Your task to perform on an android device: How much does a 2 bedroom apartment rent for in Portland? Image 0: 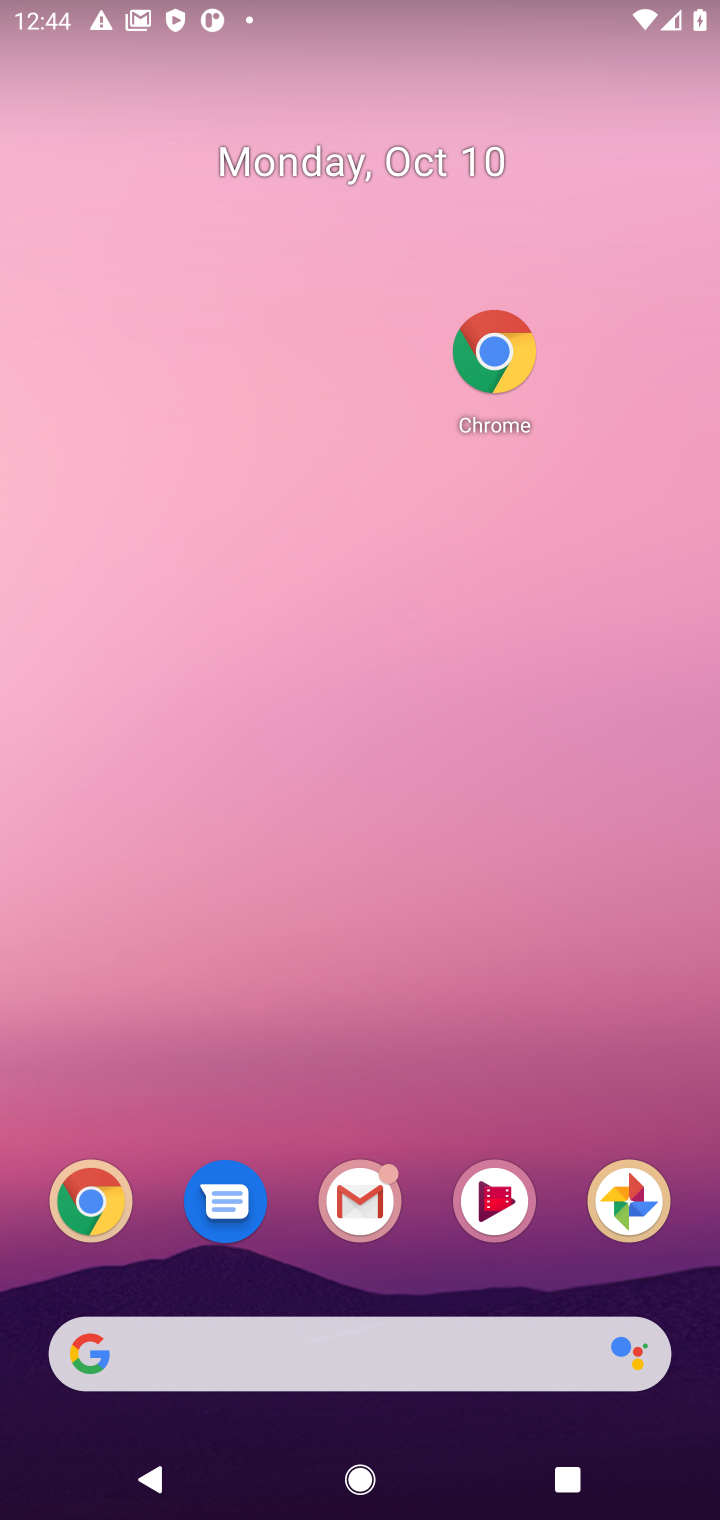
Step 0: click (493, 370)
Your task to perform on an android device: How much does a 2 bedroom apartment rent for in Portland? Image 1: 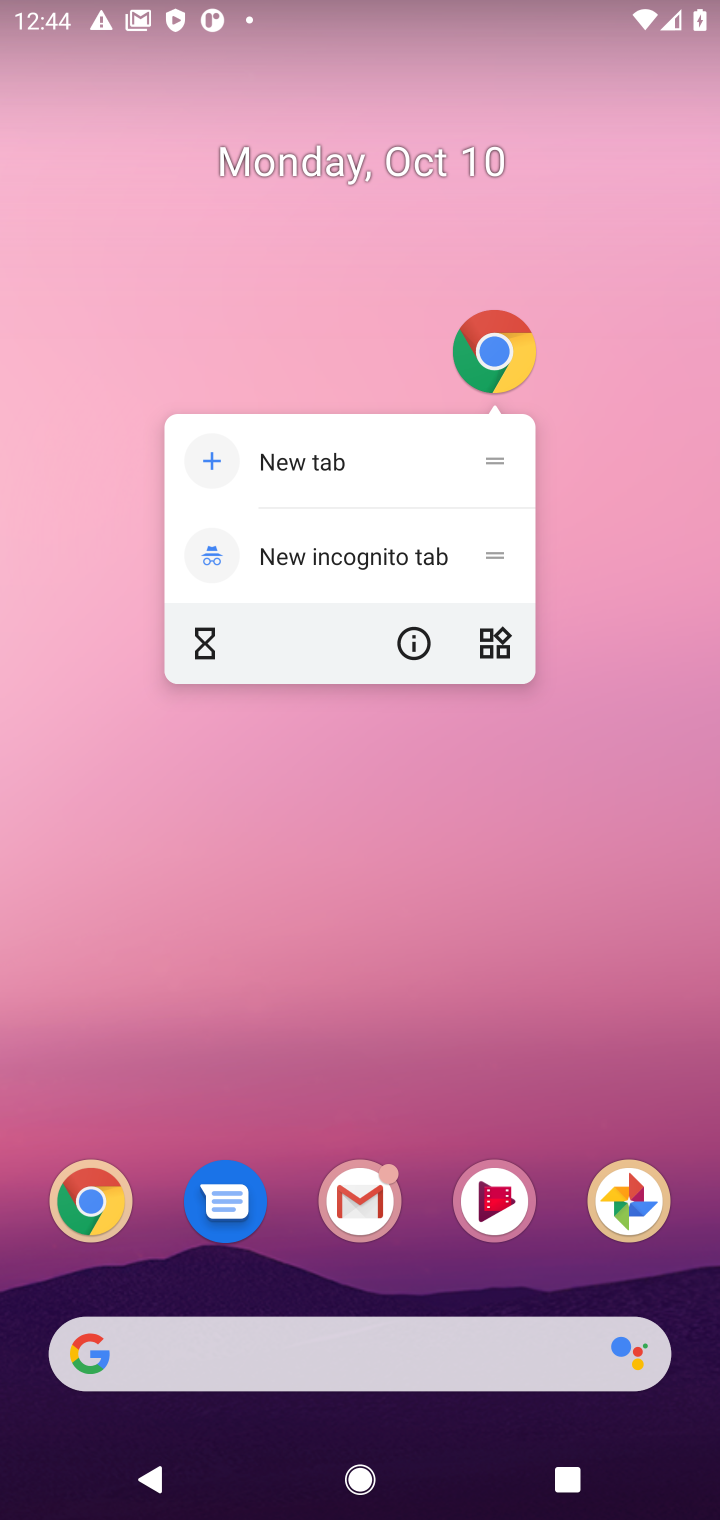
Step 1: click (493, 360)
Your task to perform on an android device: How much does a 2 bedroom apartment rent for in Portland? Image 2: 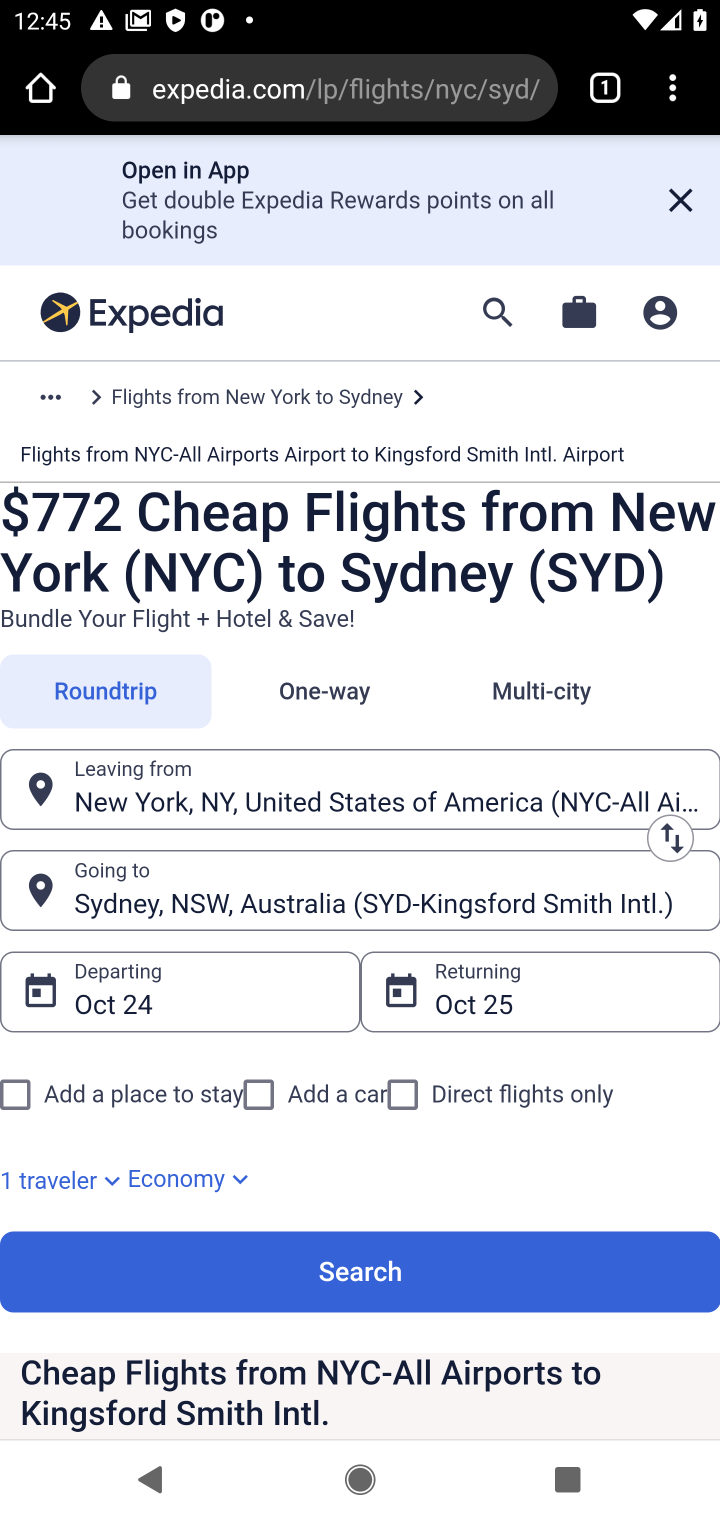
Step 2: click (315, 107)
Your task to perform on an android device: How much does a 2 bedroom apartment rent for in Portland? Image 3: 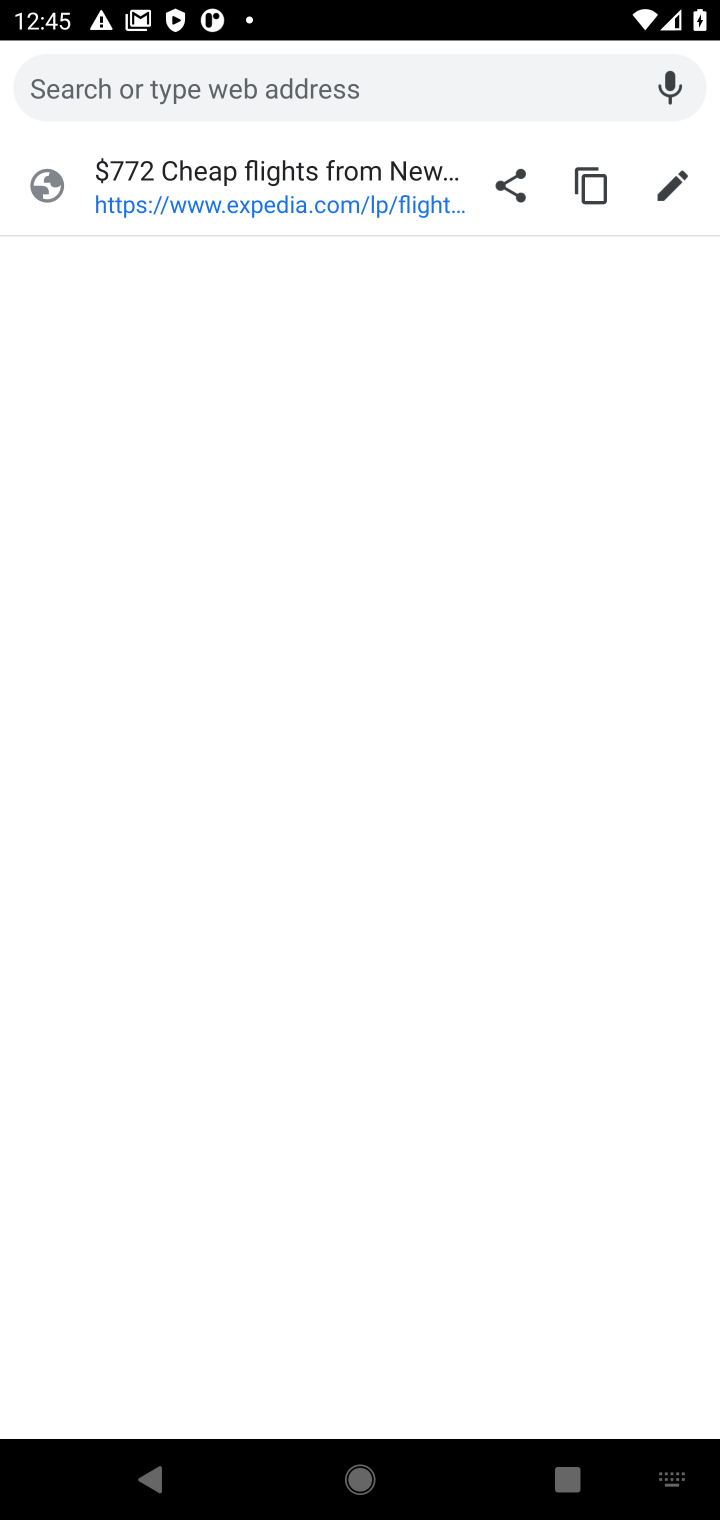
Step 3: type "How much does a 2 bedroom apartment rent for in Portland?"
Your task to perform on an android device: How much does a 2 bedroom apartment rent for in Portland? Image 4: 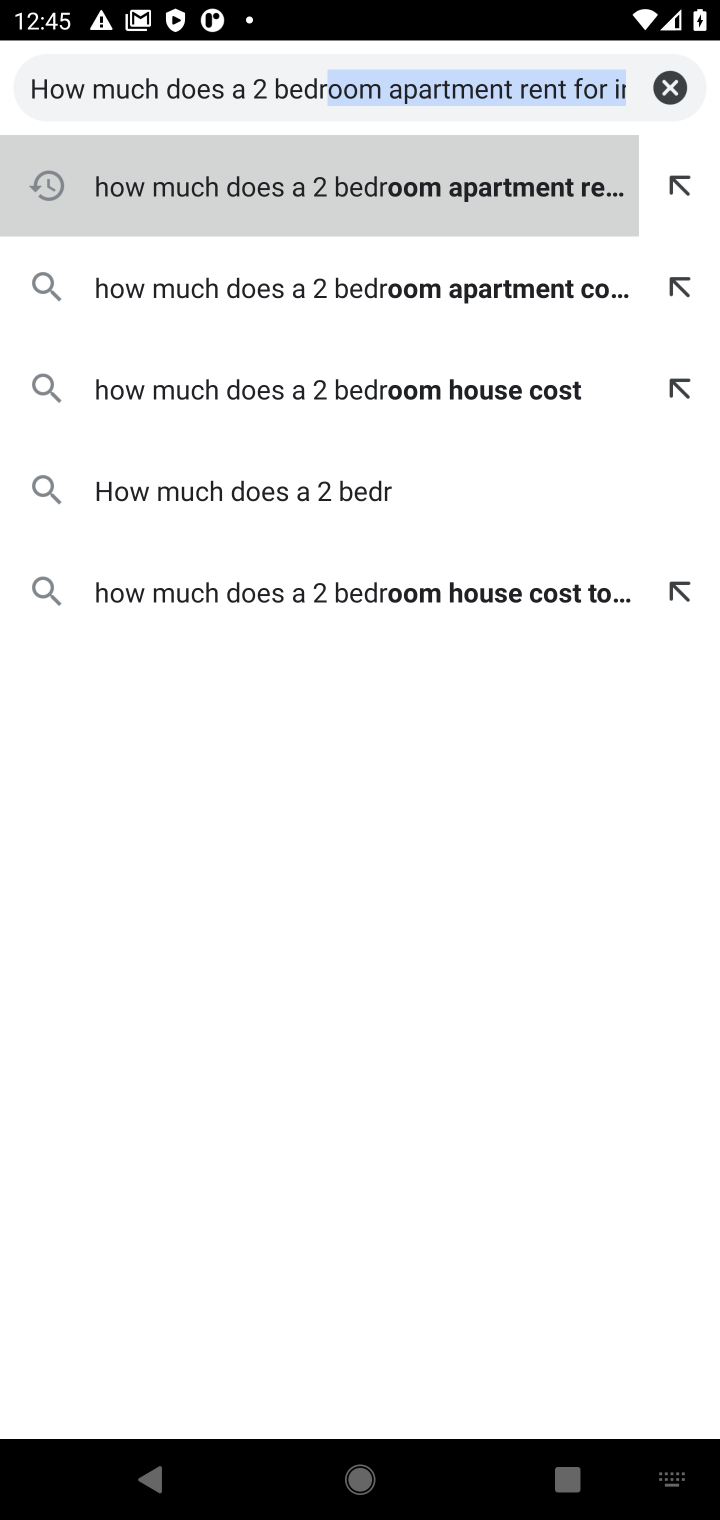
Step 4: click (452, 79)
Your task to perform on an android device: How much does a 2 bedroom apartment rent for in Portland? Image 5: 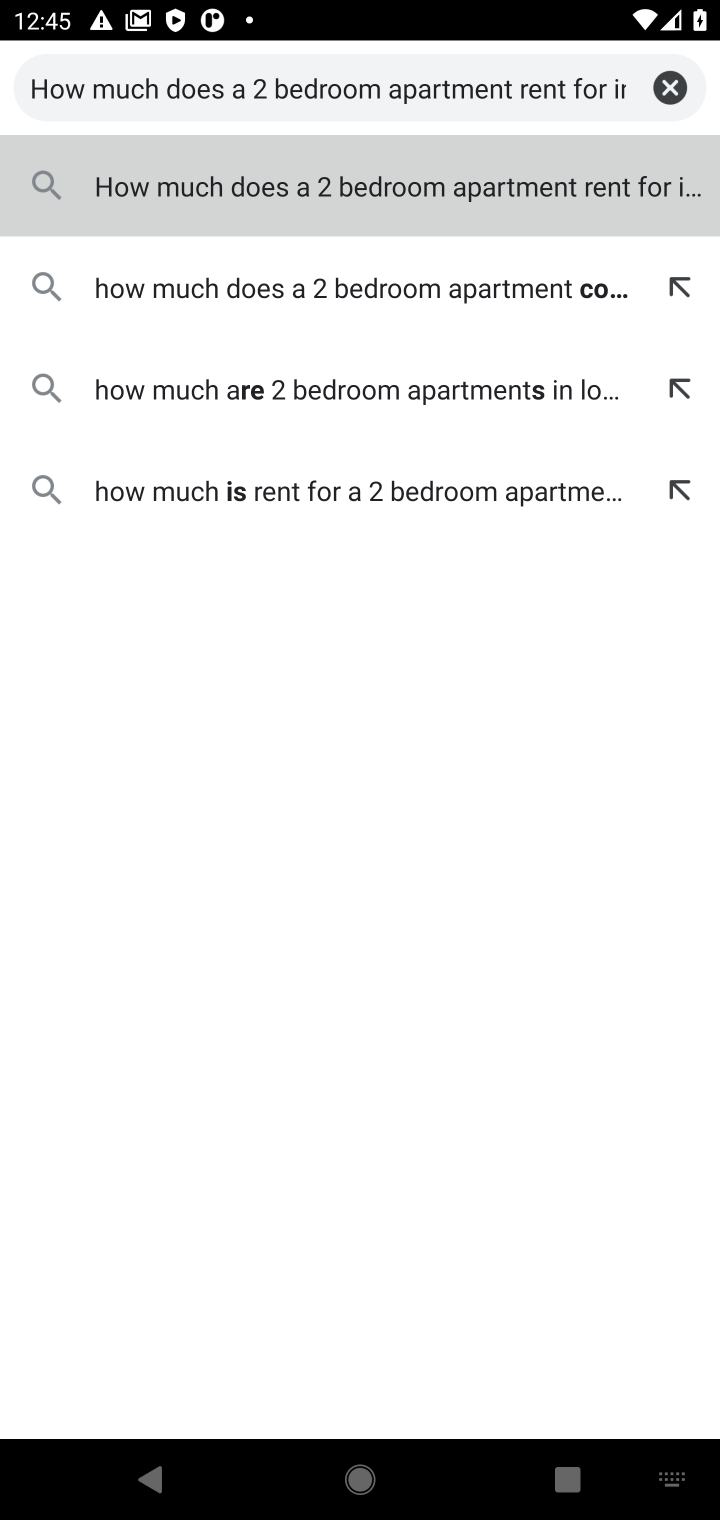
Step 5: click (582, 93)
Your task to perform on an android device: How much does a 2 bedroom apartment rent for in Portland? Image 6: 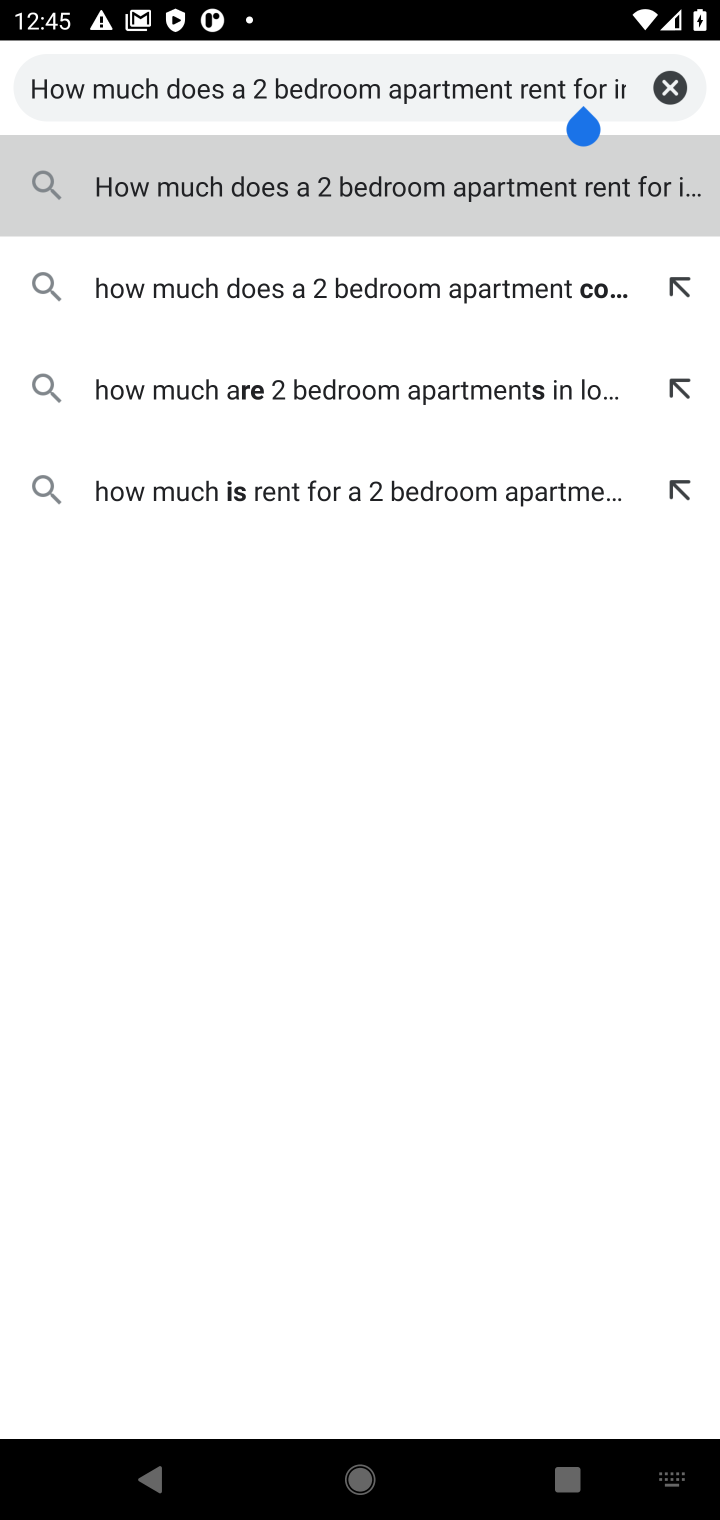
Step 6: drag from (516, 84) to (694, 93)
Your task to perform on an android device: How much does a 2 bedroom apartment rent for in Portland? Image 7: 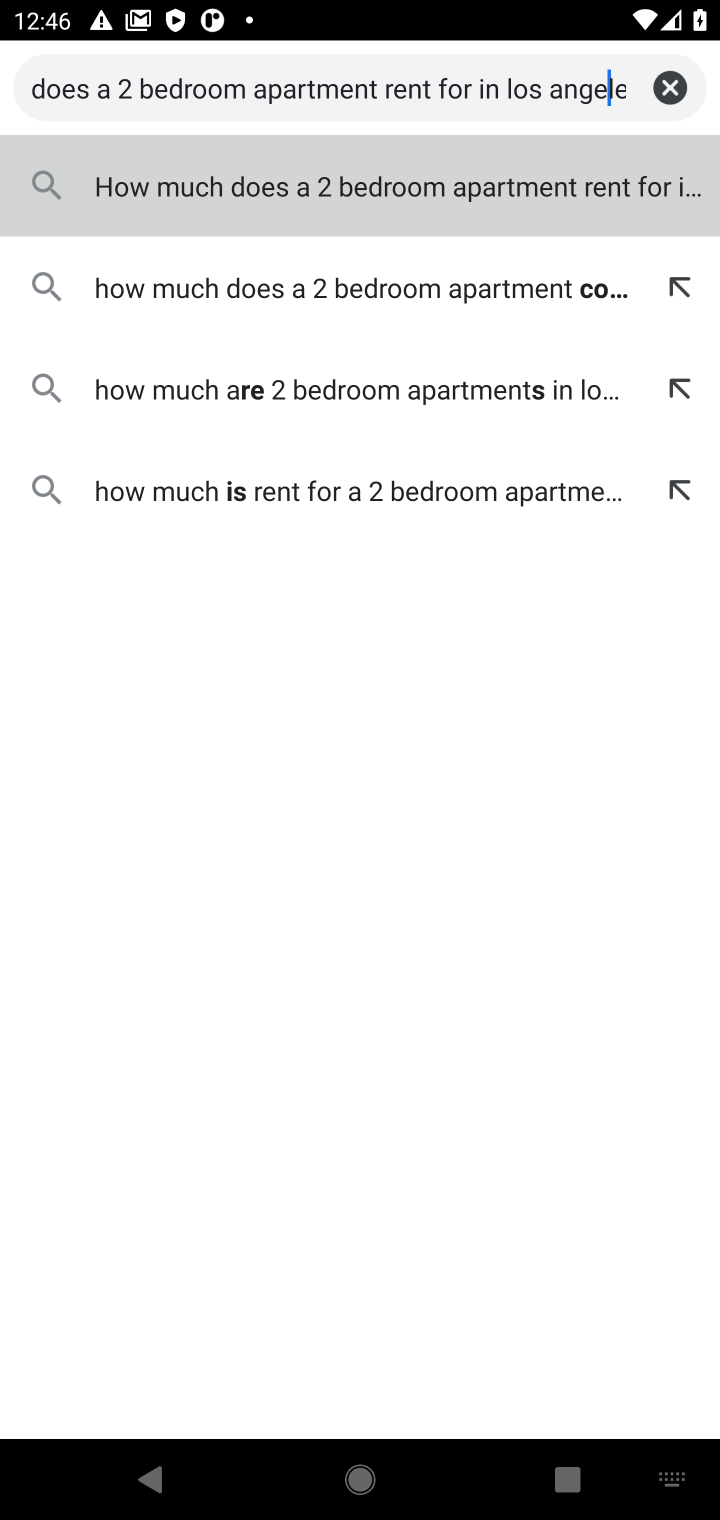
Step 7: click (662, 79)
Your task to perform on an android device: How much does a 2 bedroom apartment rent for in Portland? Image 8: 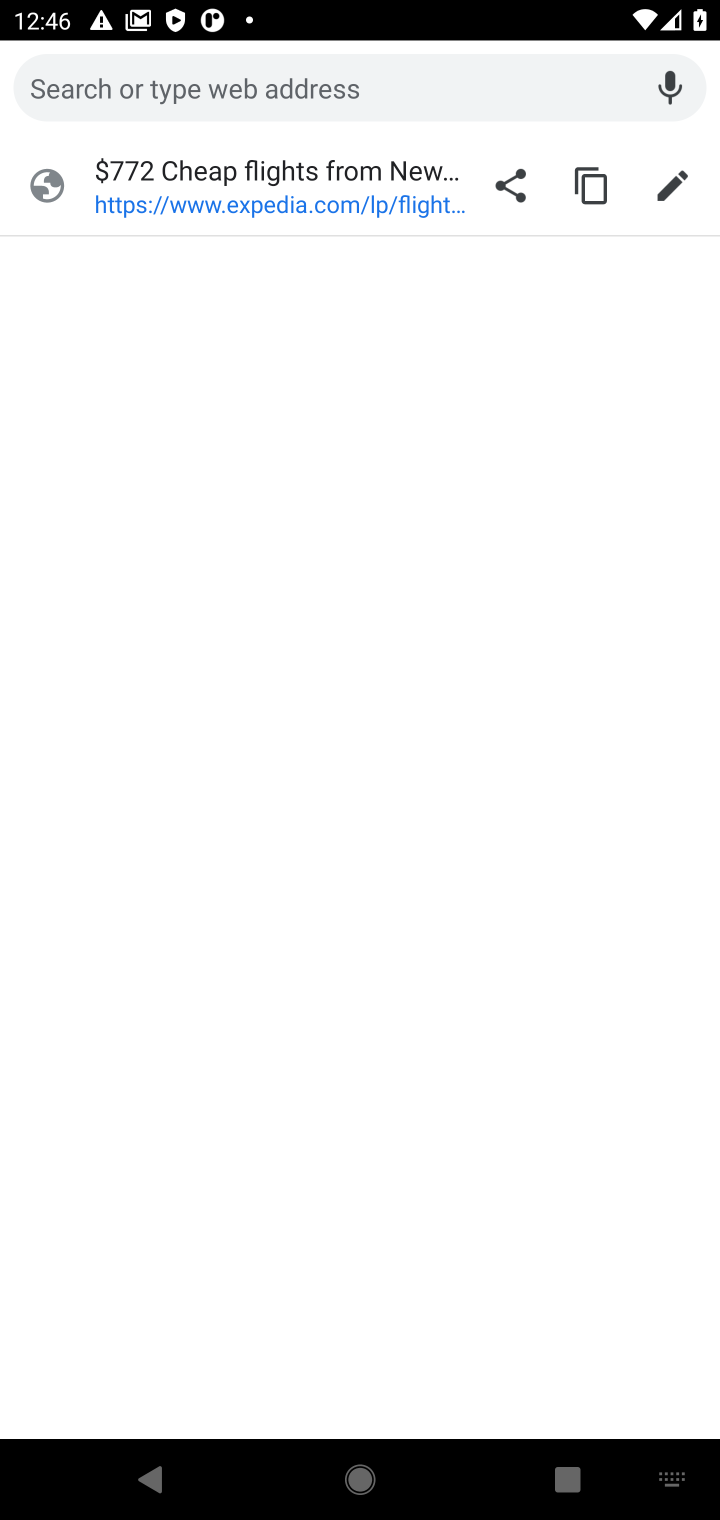
Step 8: click (180, 94)
Your task to perform on an android device: How much does a 2 bedroom apartment rent for in Portland? Image 9: 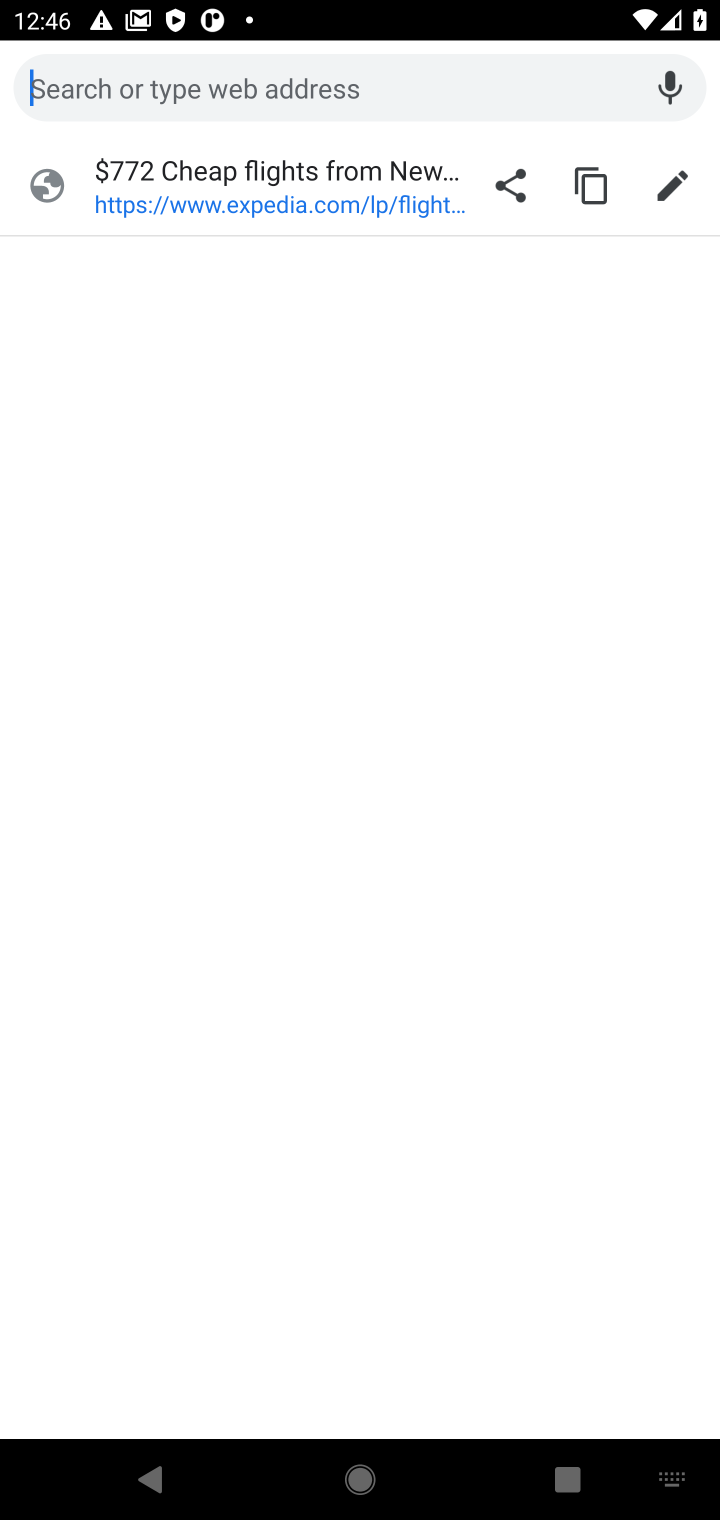
Step 9: type "2 bedroom rent in portland"
Your task to perform on an android device: How much does a 2 bedroom apartment rent for in Portland? Image 10: 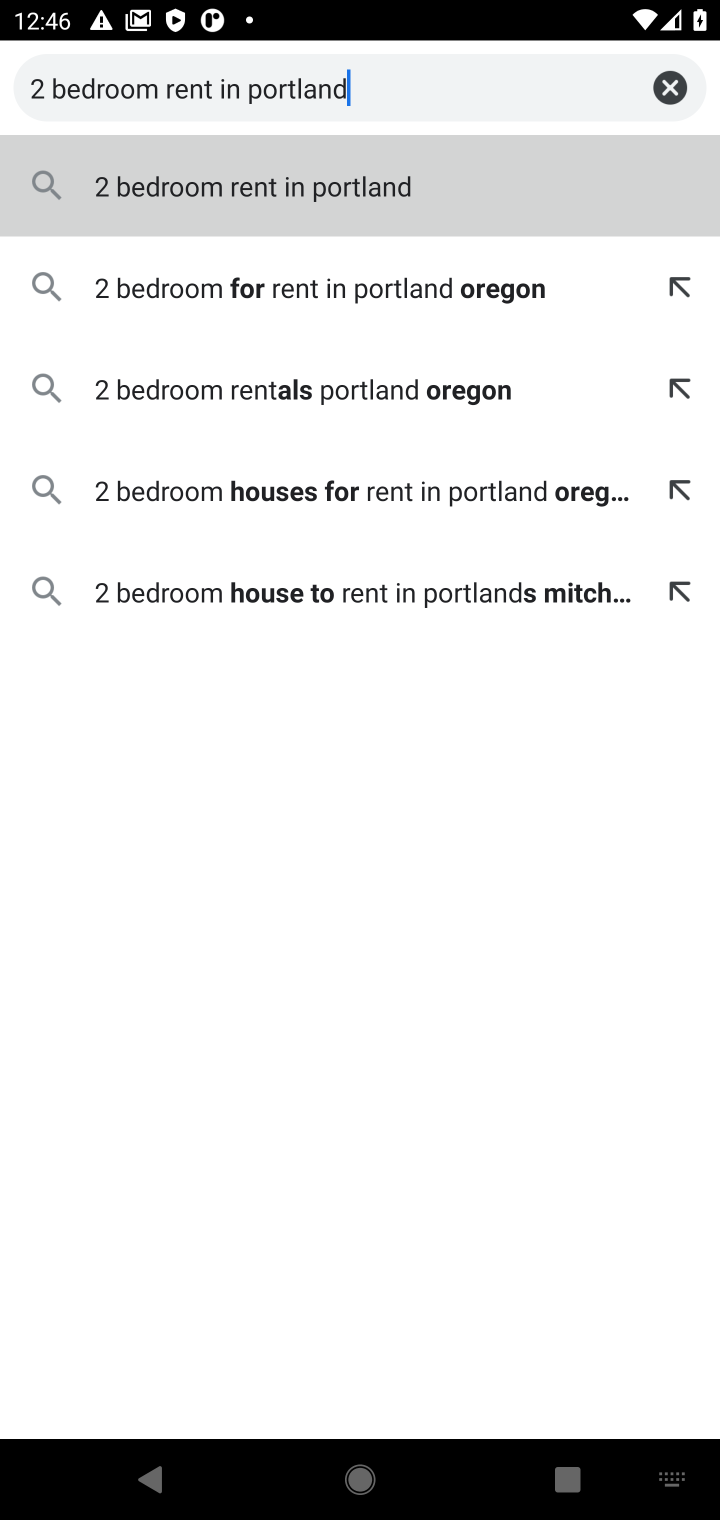
Step 10: click (250, 180)
Your task to perform on an android device: How much does a 2 bedroom apartment rent for in Portland? Image 11: 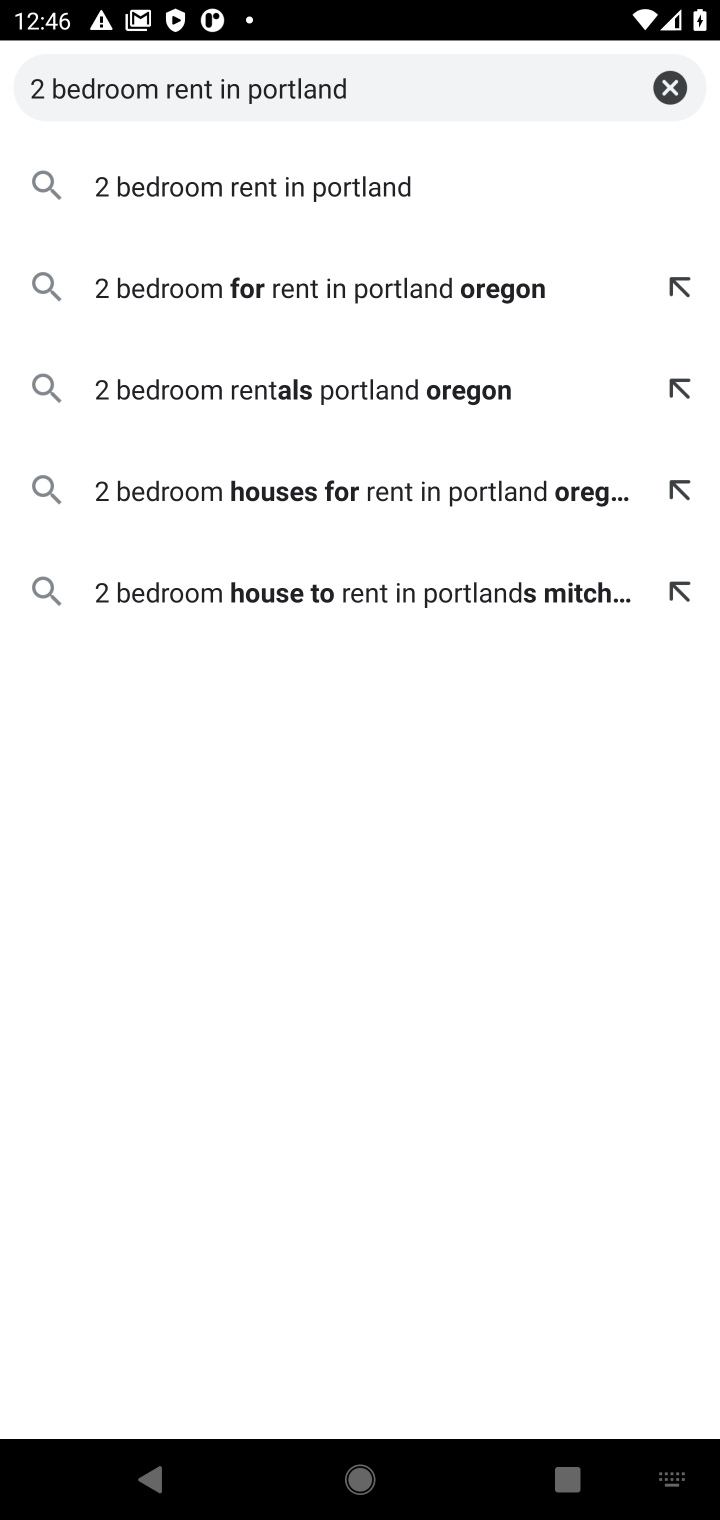
Step 11: click (213, 192)
Your task to perform on an android device: How much does a 2 bedroom apartment rent for in Portland? Image 12: 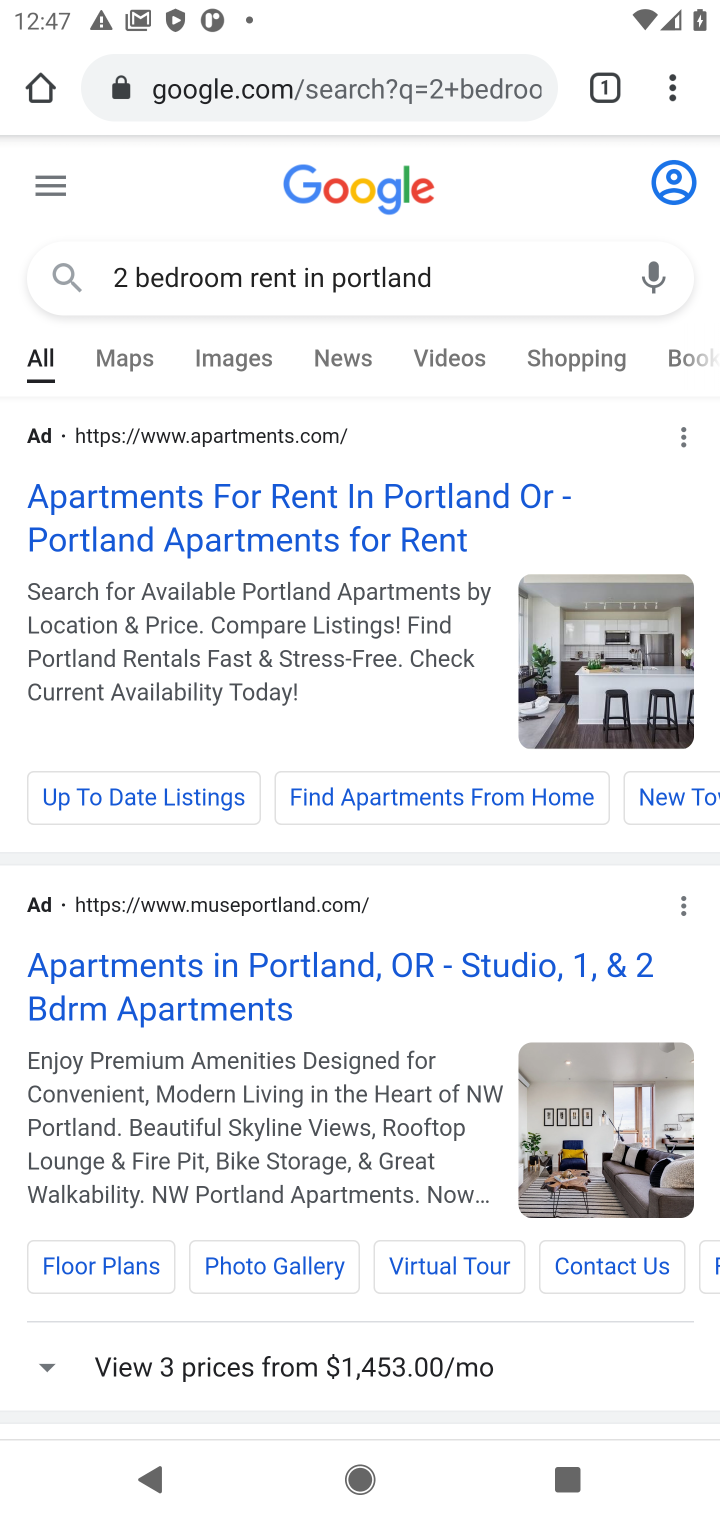
Step 12: click (241, 1114)
Your task to perform on an android device: How much does a 2 bedroom apartment rent for in Portland? Image 13: 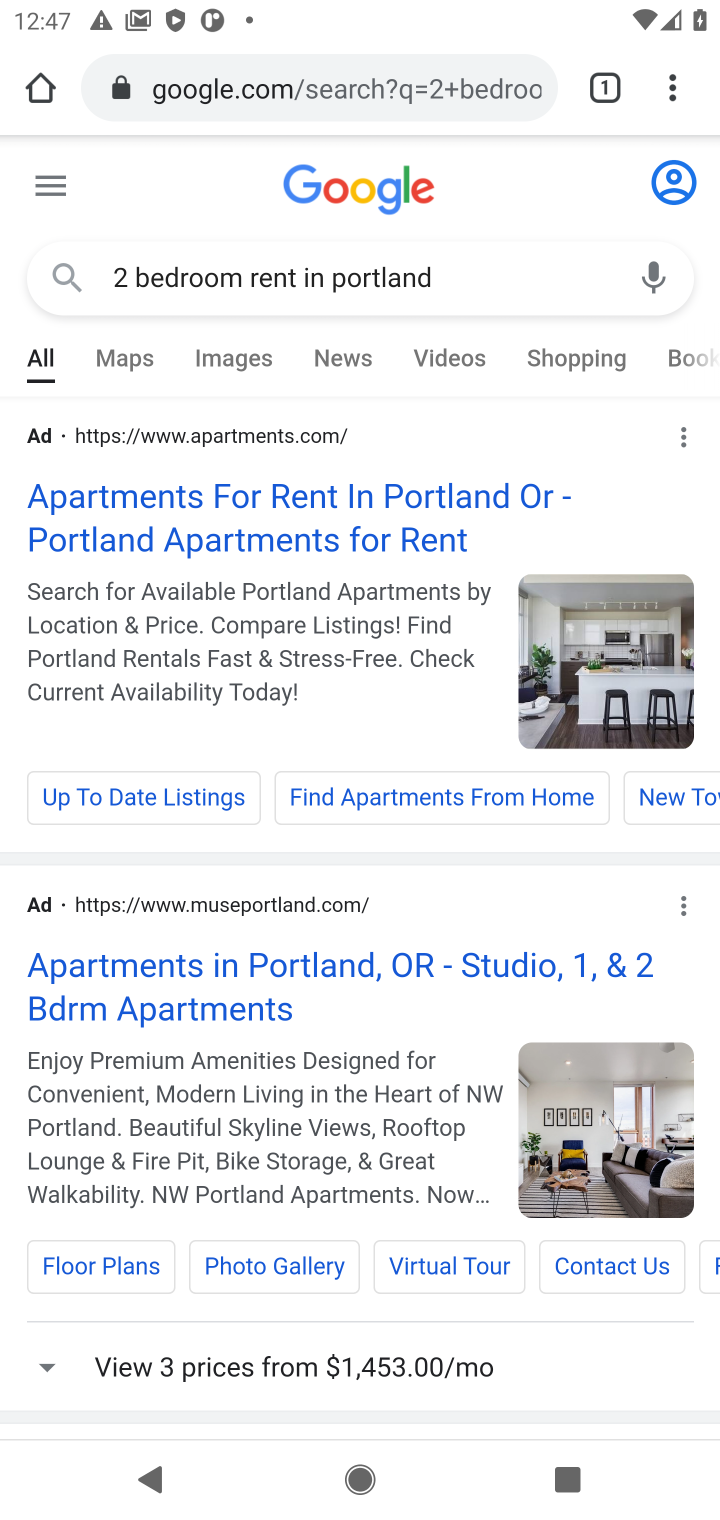
Step 13: drag from (241, 1111) to (259, 425)
Your task to perform on an android device: How much does a 2 bedroom apartment rent for in Portland? Image 14: 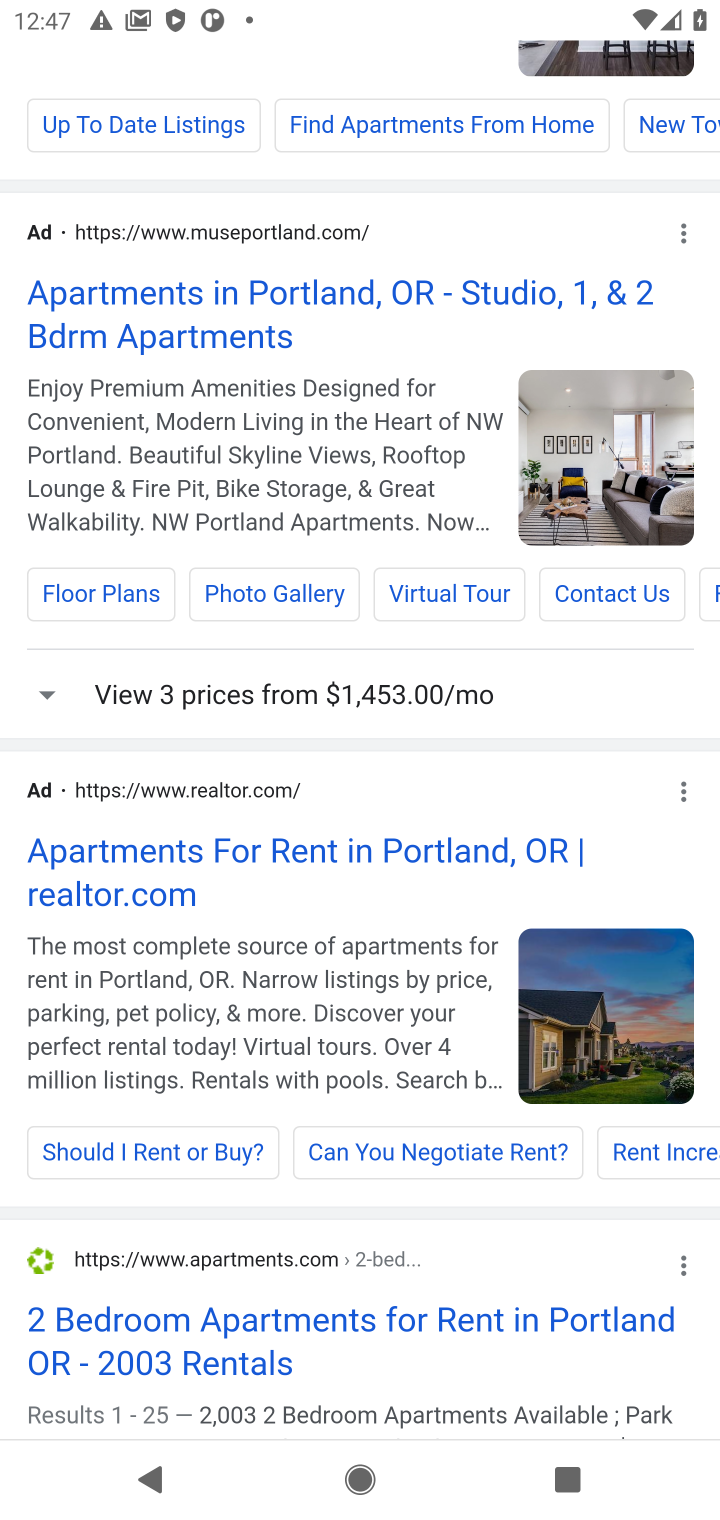
Step 14: drag from (241, 1076) to (184, 622)
Your task to perform on an android device: How much does a 2 bedroom apartment rent for in Portland? Image 15: 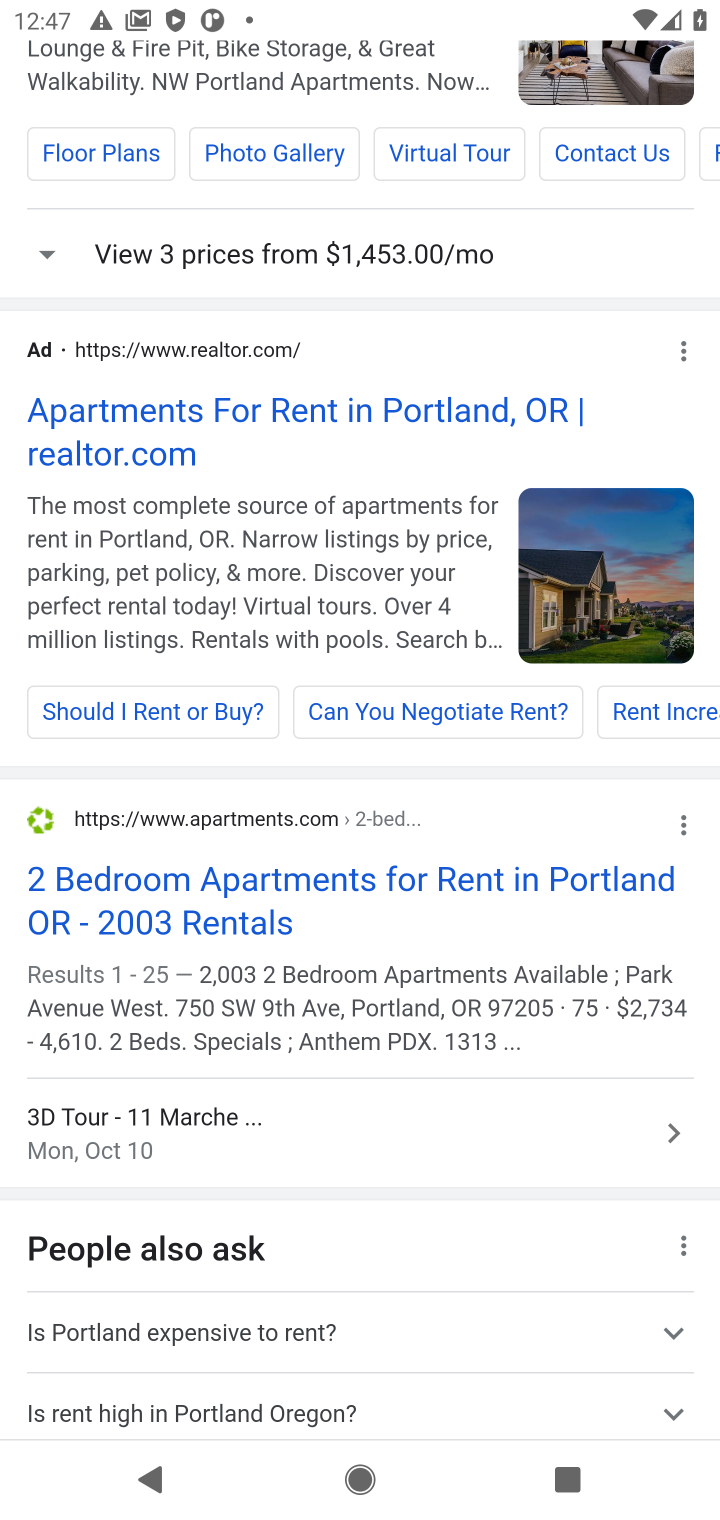
Step 15: click (204, 976)
Your task to perform on an android device: How much does a 2 bedroom apartment rent for in Portland? Image 16: 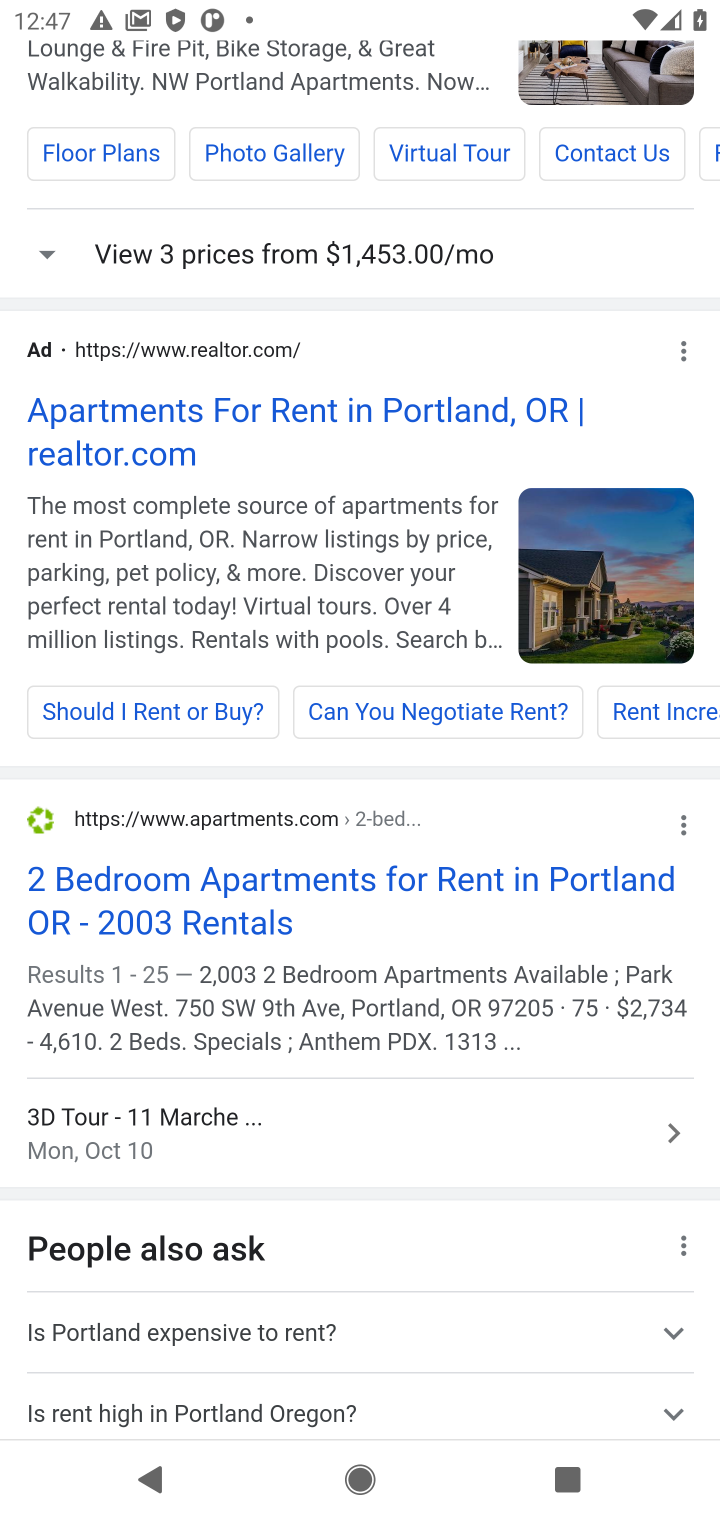
Step 16: click (202, 858)
Your task to perform on an android device: How much does a 2 bedroom apartment rent for in Portland? Image 17: 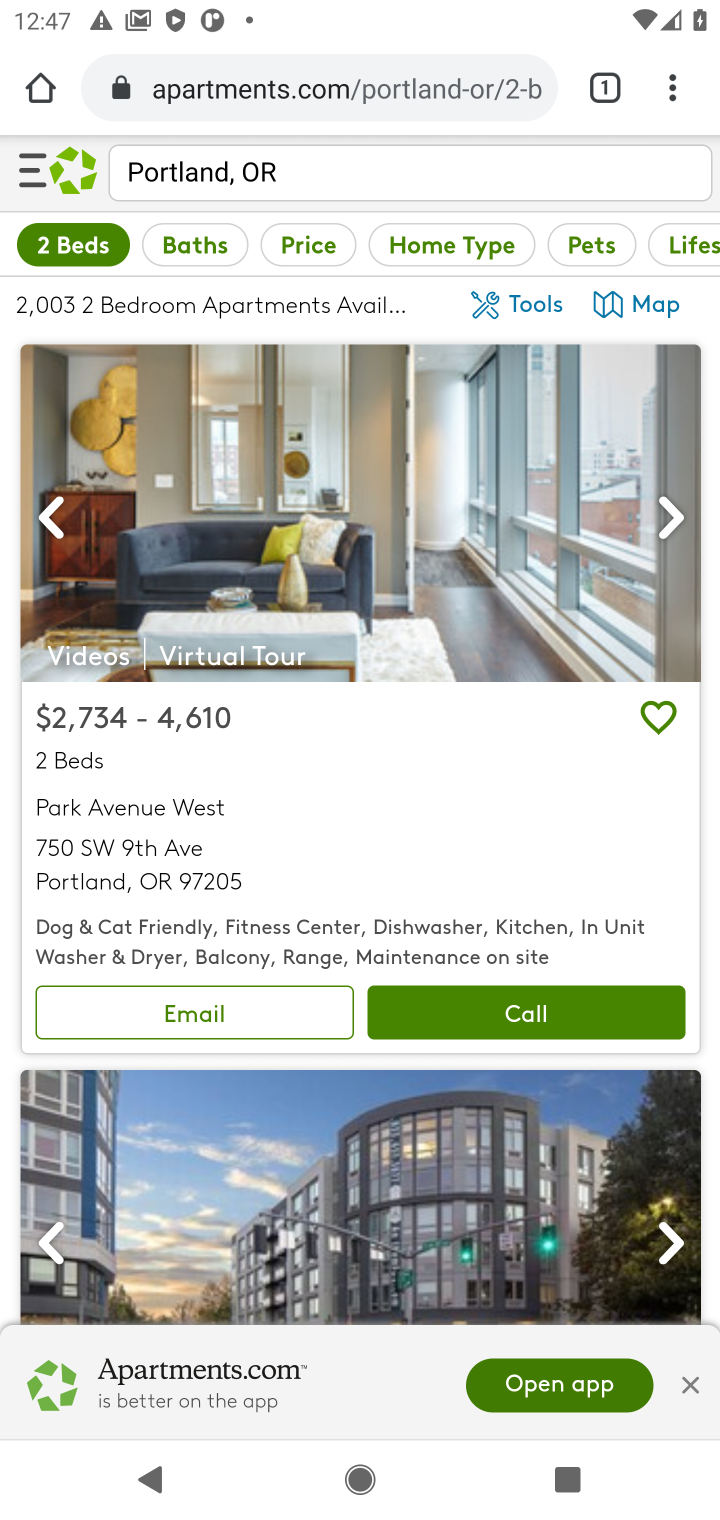
Step 17: task complete